Your task to perform on an android device: see tabs open on other devices in the chrome app Image 0: 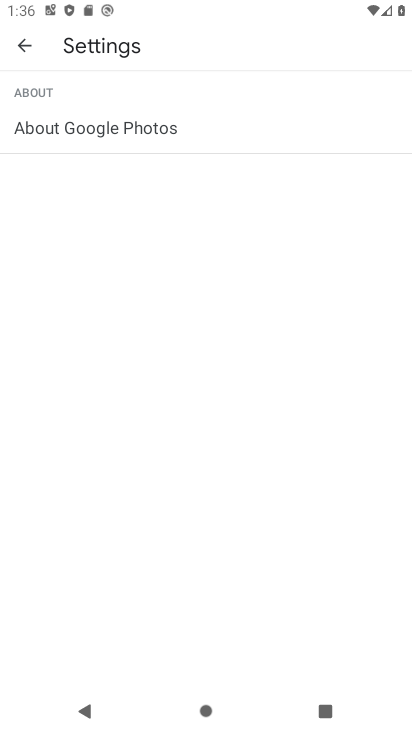
Step 0: press home button
Your task to perform on an android device: see tabs open on other devices in the chrome app Image 1: 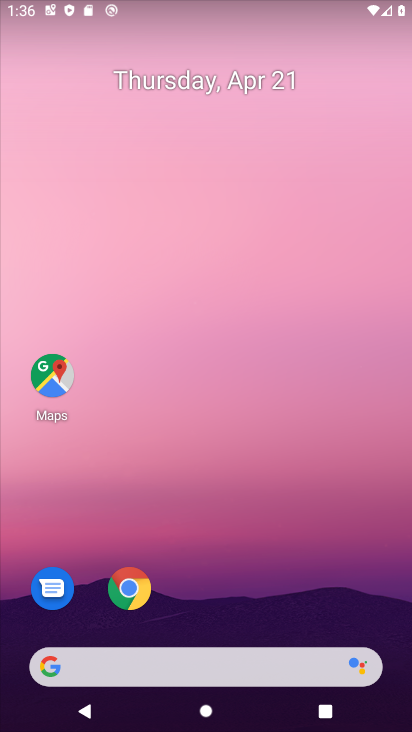
Step 1: click (136, 597)
Your task to perform on an android device: see tabs open on other devices in the chrome app Image 2: 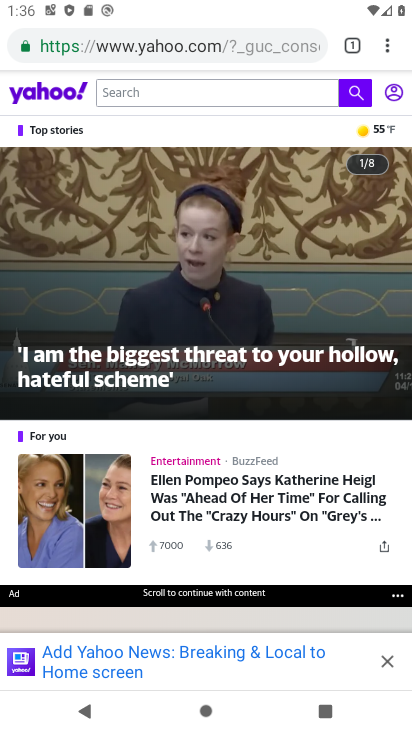
Step 2: task complete